Your task to perform on an android device: turn on sleep mode Image 0: 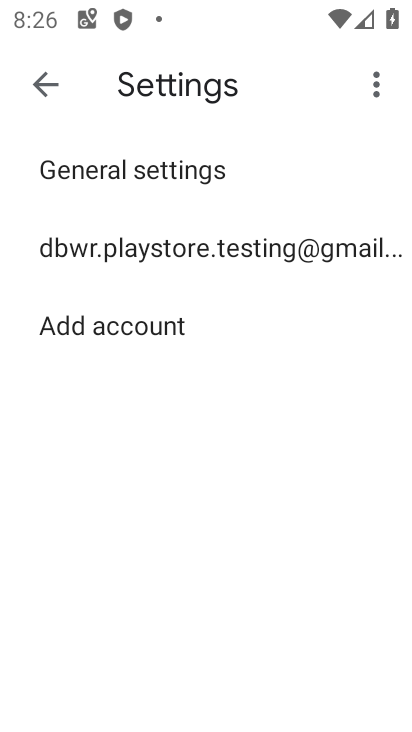
Step 0: press home button
Your task to perform on an android device: turn on sleep mode Image 1: 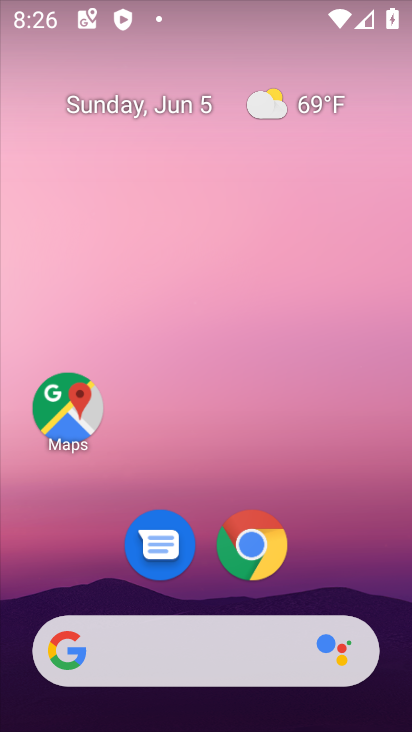
Step 1: drag from (357, 572) to (348, 179)
Your task to perform on an android device: turn on sleep mode Image 2: 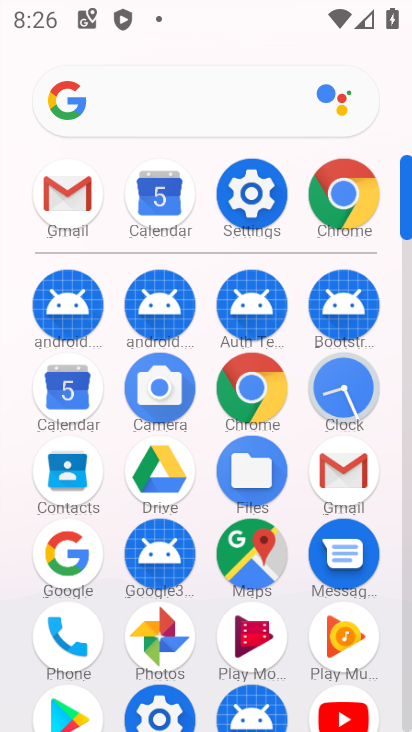
Step 2: drag from (296, 565) to (290, 382)
Your task to perform on an android device: turn on sleep mode Image 3: 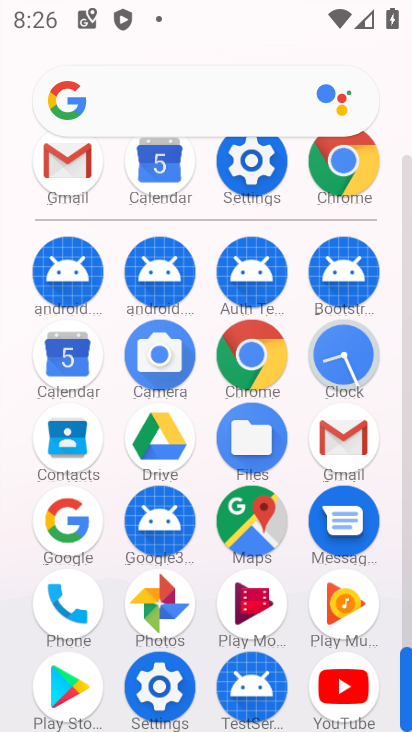
Step 3: click (175, 680)
Your task to perform on an android device: turn on sleep mode Image 4: 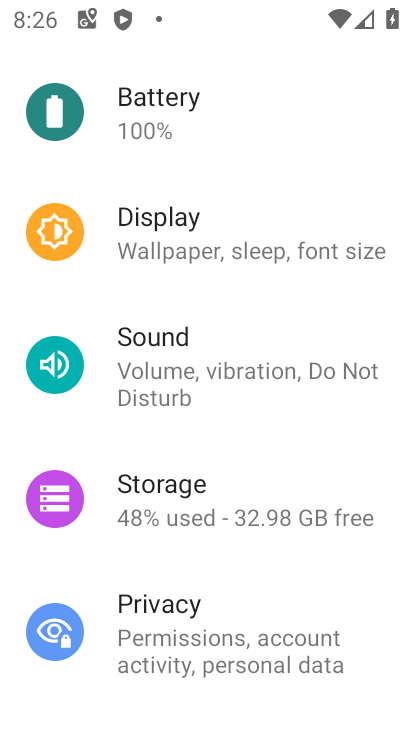
Step 4: drag from (368, 177) to (378, 305)
Your task to perform on an android device: turn on sleep mode Image 5: 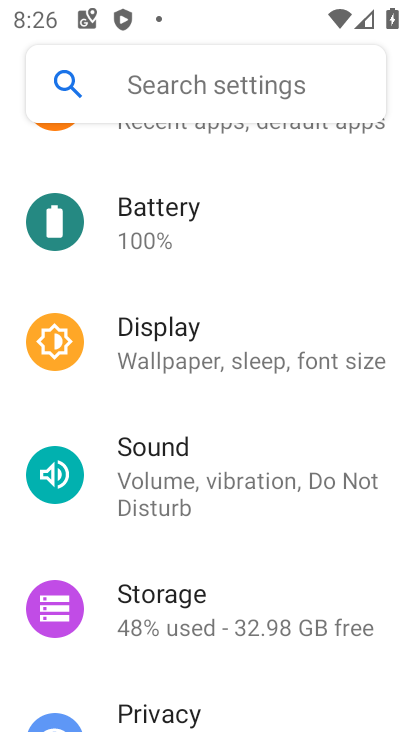
Step 5: drag from (370, 180) to (373, 334)
Your task to perform on an android device: turn on sleep mode Image 6: 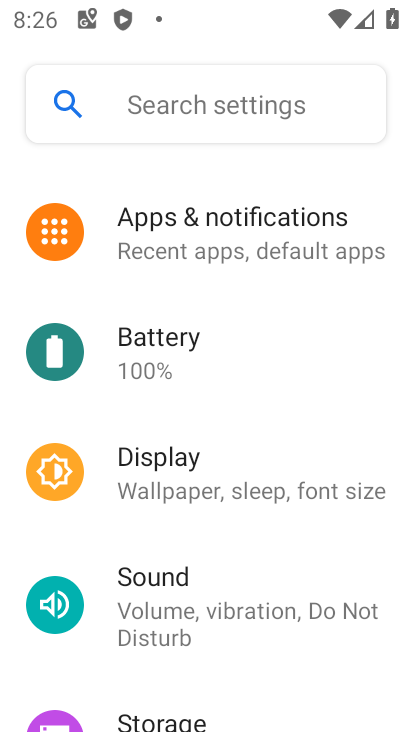
Step 6: drag from (382, 187) to (383, 329)
Your task to perform on an android device: turn on sleep mode Image 7: 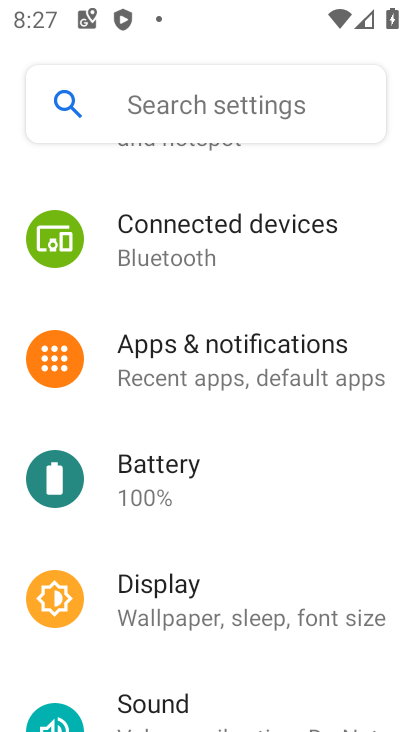
Step 7: drag from (380, 185) to (384, 351)
Your task to perform on an android device: turn on sleep mode Image 8: 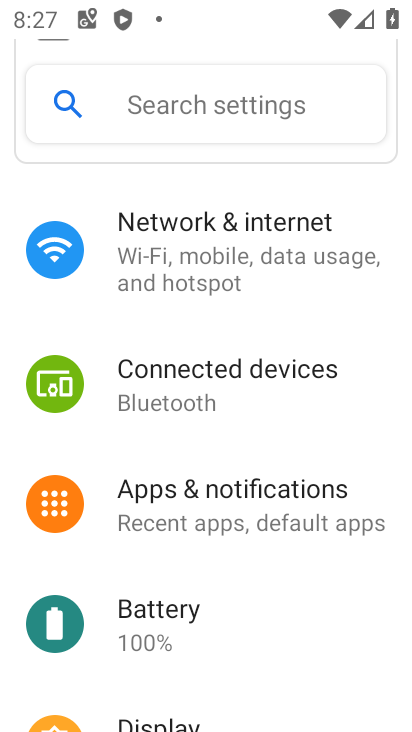
Step 8: drag from (365, 199) to (369, 391)
Your task to perform on an android device: turn on sleep mode Image 9: 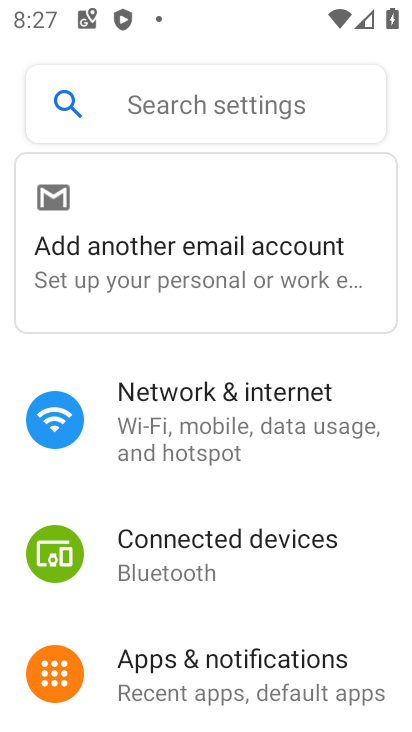
Step 9: drag from (378, 207) to (377, 405)
Your task to perform on an android device: turn on sleep mode Image 10: 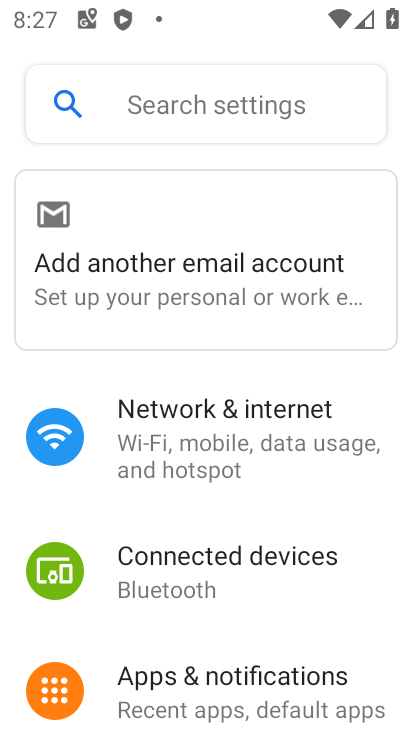
Step 10: drag from (378, 568) to (384, 431)
Your task to perform on an android device: turn on sleep mode Image 11: 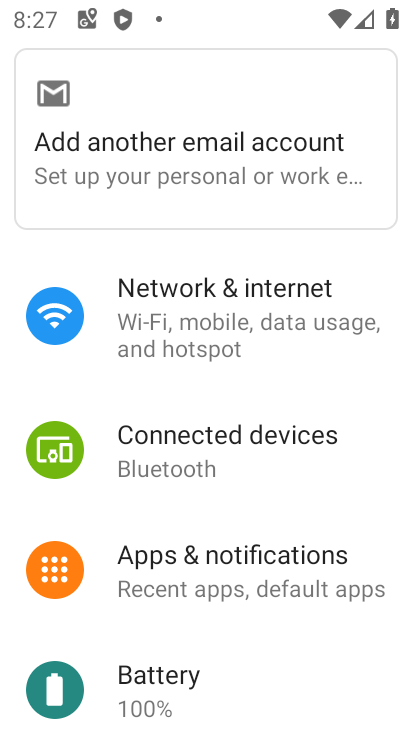
Step 11: drag from (375, 622) to (379, 407)
Your task to perform on an android device: turn on sleep mode Image 12: 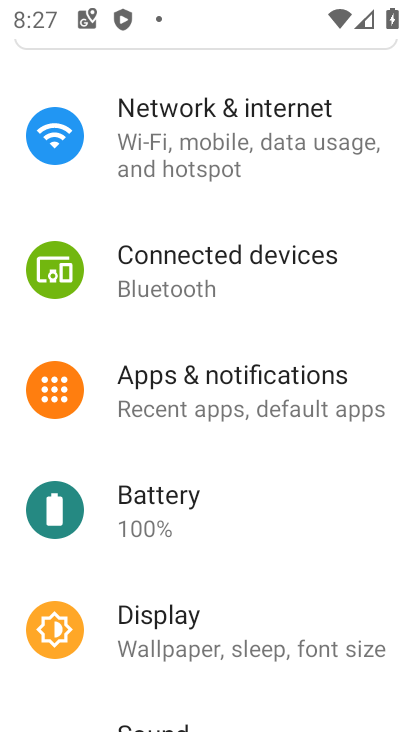
Step 12: drag from (367, 541) to (367, 349)
Your task to perform on an android device: turn on sleep mode Image 13: 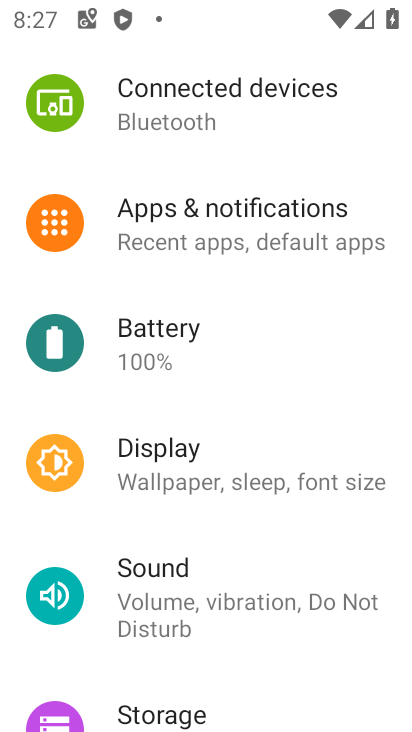
Step 13: drag from (362, 541) to (368, 378)
Your task to perform on an android device: turn on sleep mode Image 14: 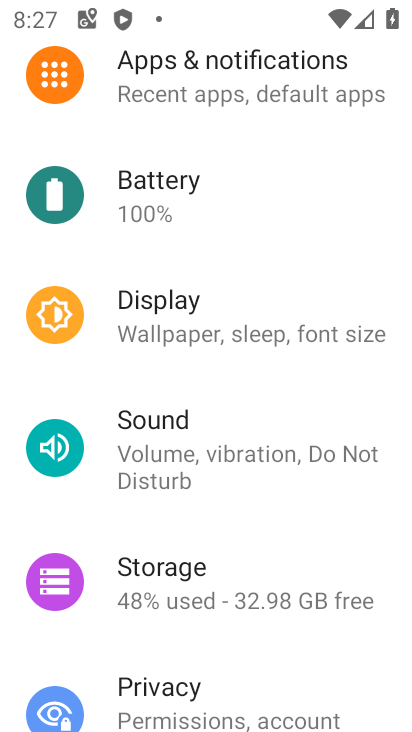
Step 14: click (319, 339)
Your task to perform on an android device: turn on sleep mode Image 15: 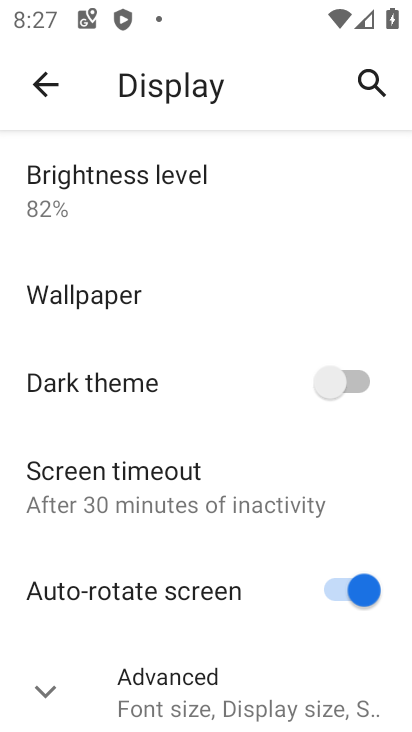
Step 15: click (247, 696)
Your task to perform on an android device: turn on sleep mode Image 16: 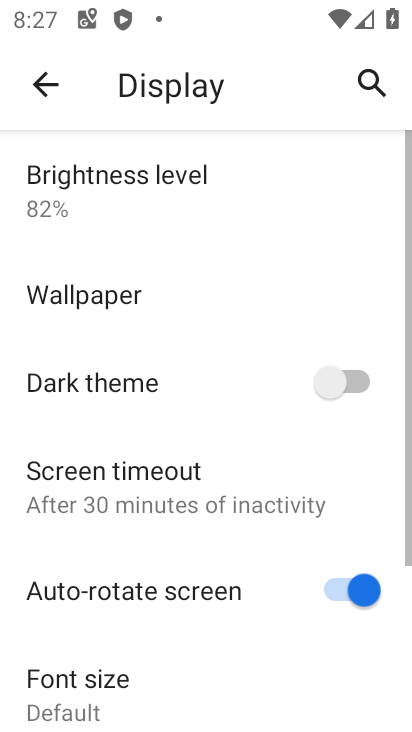
Step 16: task complete